Your task to perform on an android device: check storage Image 0: 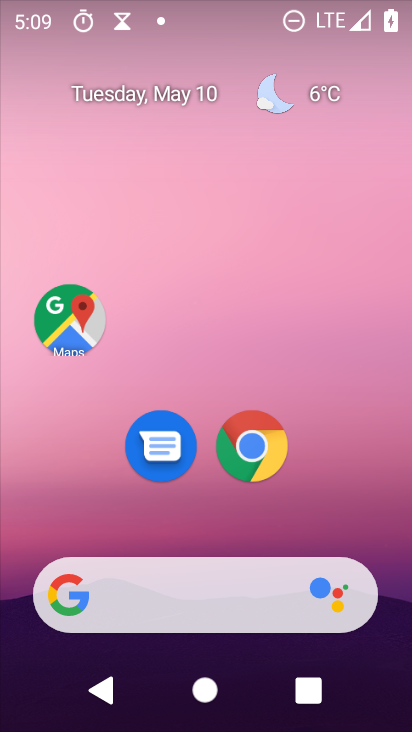
Step 0: drag from (207, 524) to (215, 138)
Your task to perform on an android device: check storage Image 1: 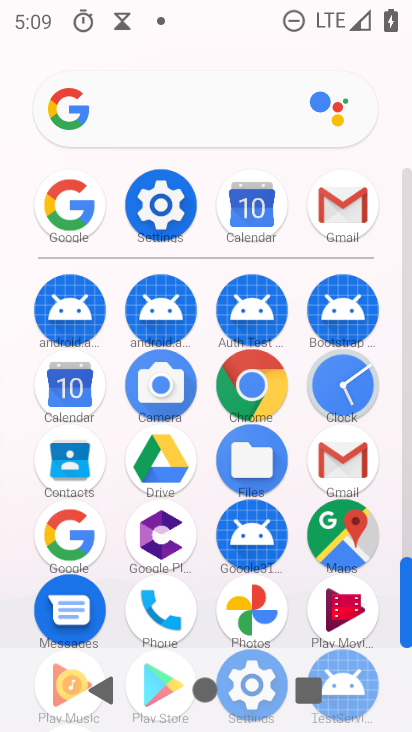
Step 1: click (158, 211)
Your task to perform on an android device: check storage Image 2: 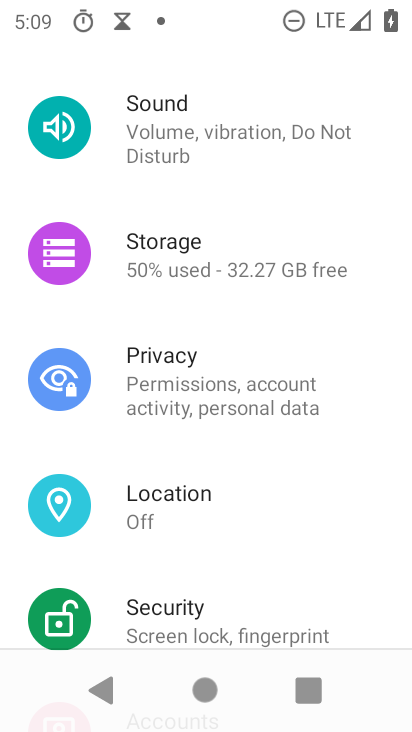
Step 2: click (212, 260)
Your task to perform on an android device: check storage Image 3: 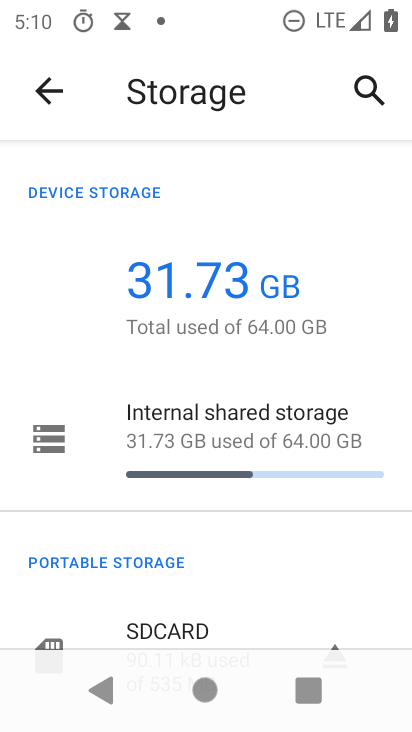
Step 3: task complete